Your task to perform on an android device: Open maps Image 0: 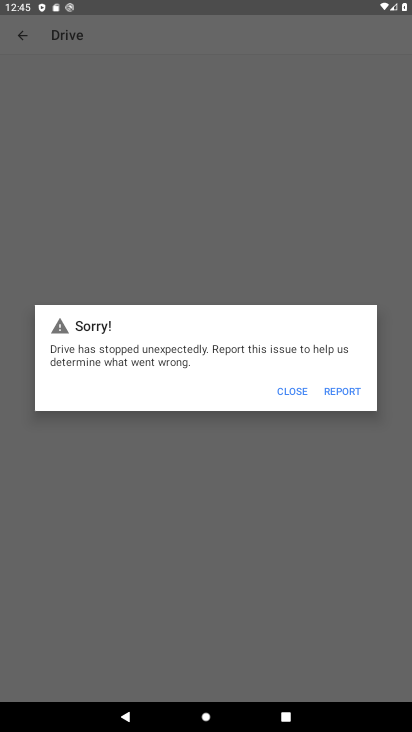
Step 0: press home button
Your task to perform on an android device: Open maps Image 1: 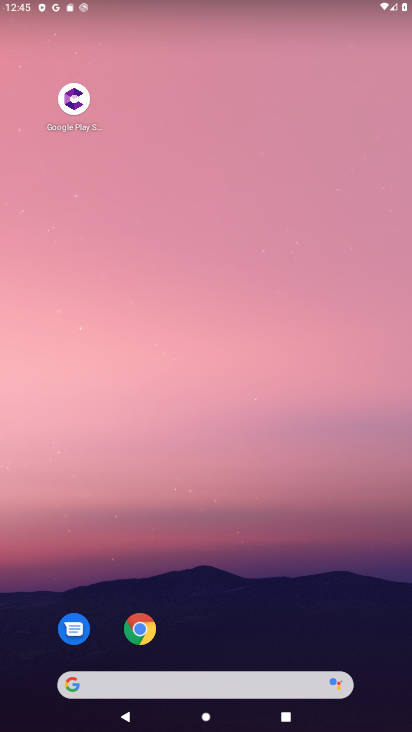
Step 1: drag from (209, 604) to (284, 61)
Your task to perform on an android device: Open maps Image 2: 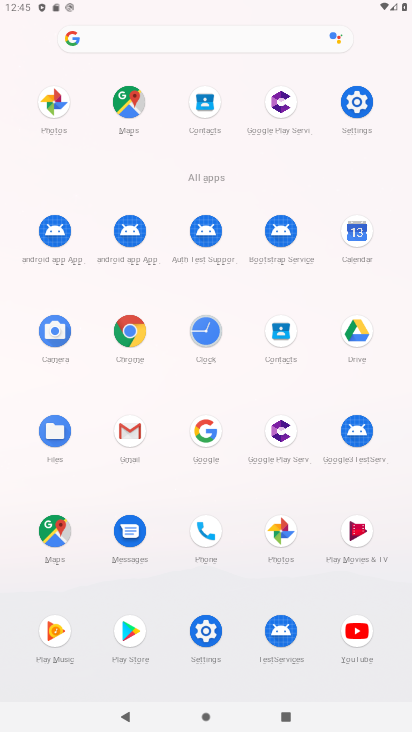
Step 2: click (51, 528)
Your task to perform on an android device: Open maps Image 3: 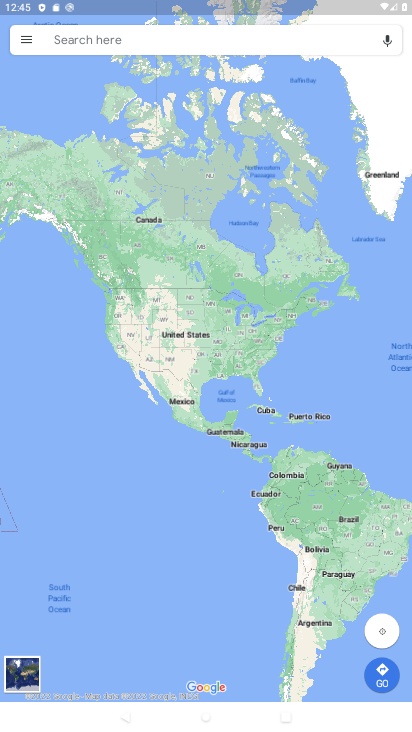
Step 3: task complete